Your task to perform on an android device: toggle airplane mode Image 0: 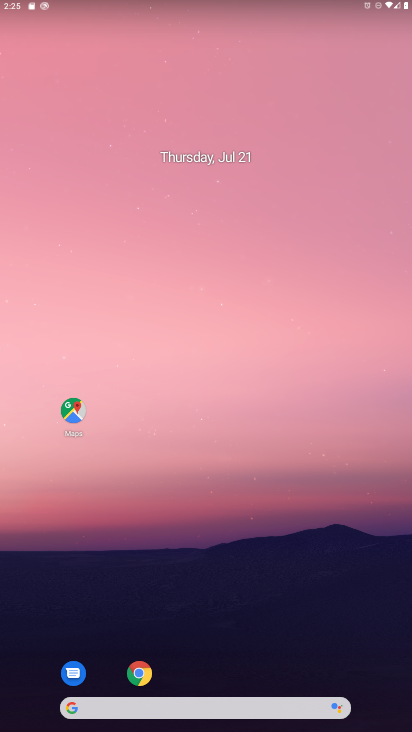
Step 0: drag from (246, 658) to (177, 192)
Your task to perform on an android device: toggle airplane mode Image 1: 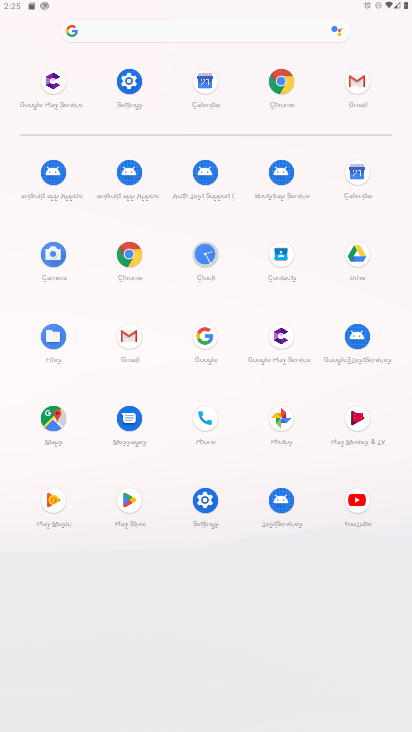
Step 1: click (130, 73)
Your task to perform on an android device: toggle airplane mode Image 2: 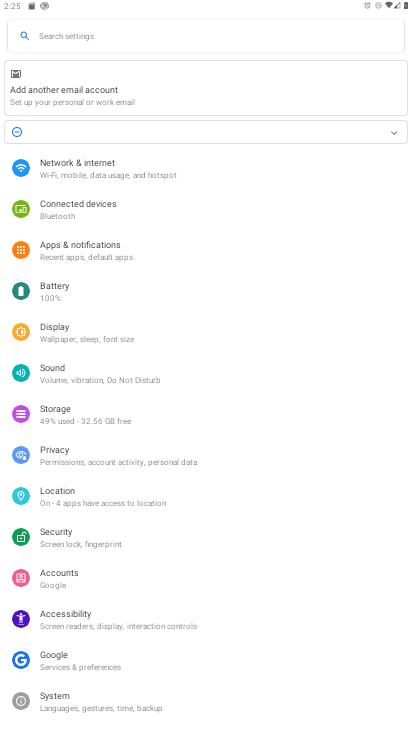
Step 2: click (100, 150)
Your task to perform on an android device: toggle airplane mode Image 3: 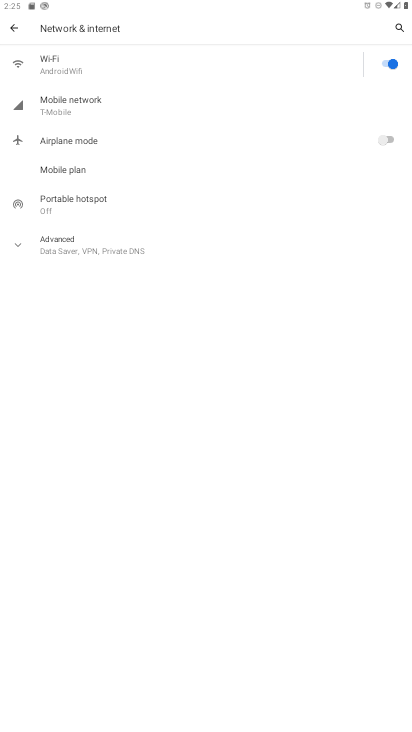
Step 3: click (97, 154)
Your task to perform on an android device: toggle airplane mode Image 4: 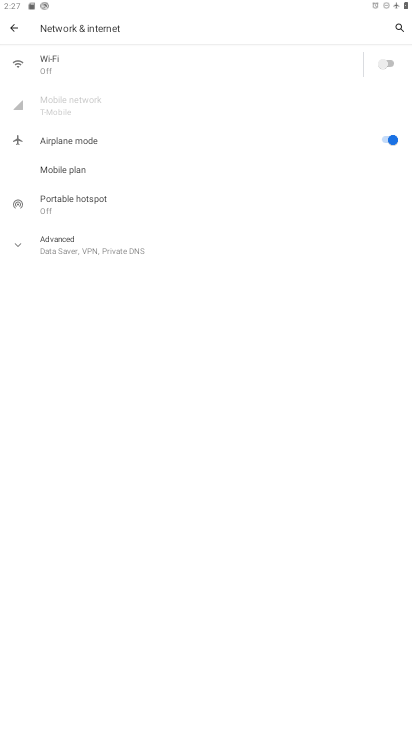
Step 4: task complete